Your task to perform on an android device: uninstall "DoorDash - Food Delivery" Image 0: 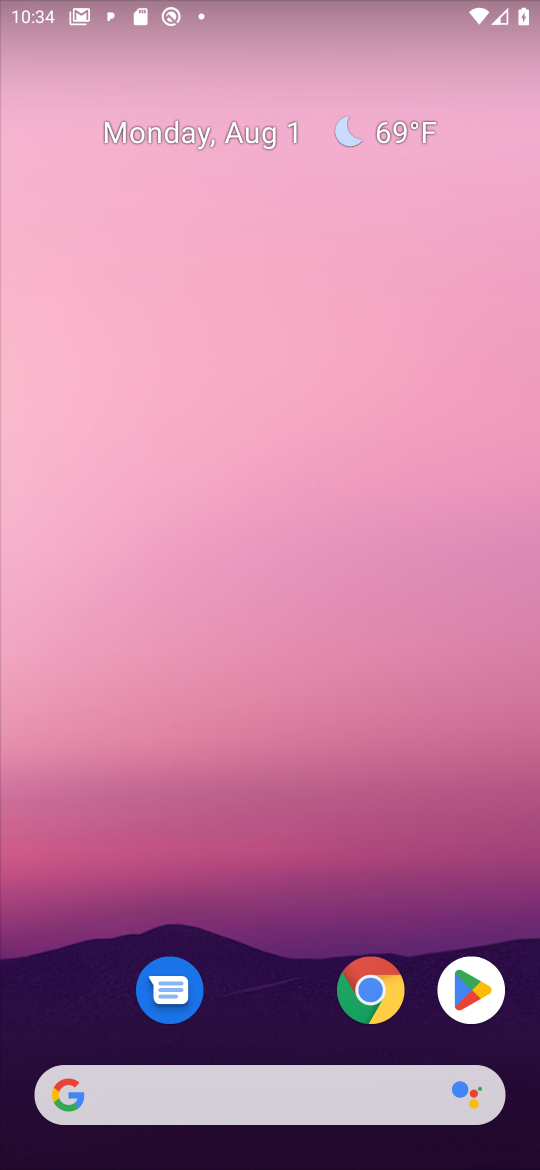
Step 0: click (461, 997)
Your task to perform on an android device: uninstall "DoorDash - Food Delivery" Image 1: 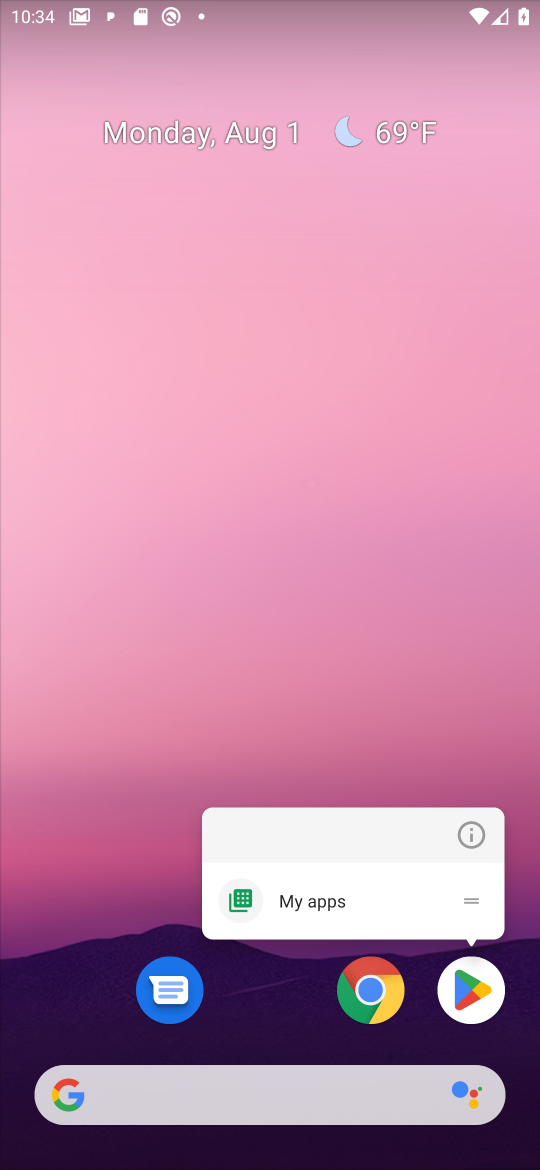
Step 1: click (498, 996)
Your task to perform on an android device: uninstall "DoorDash - Food Delivery" Image 2: 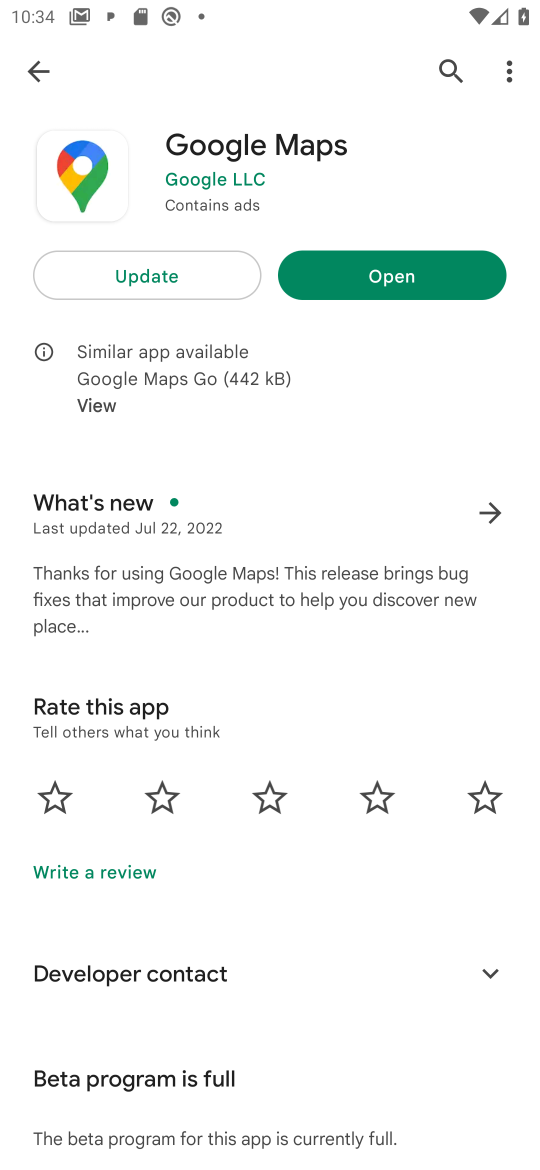
Step 2: click (452, 63)
Your task to perform on an android device: uninstall "DoorDash - Food Delivery" Image 3: 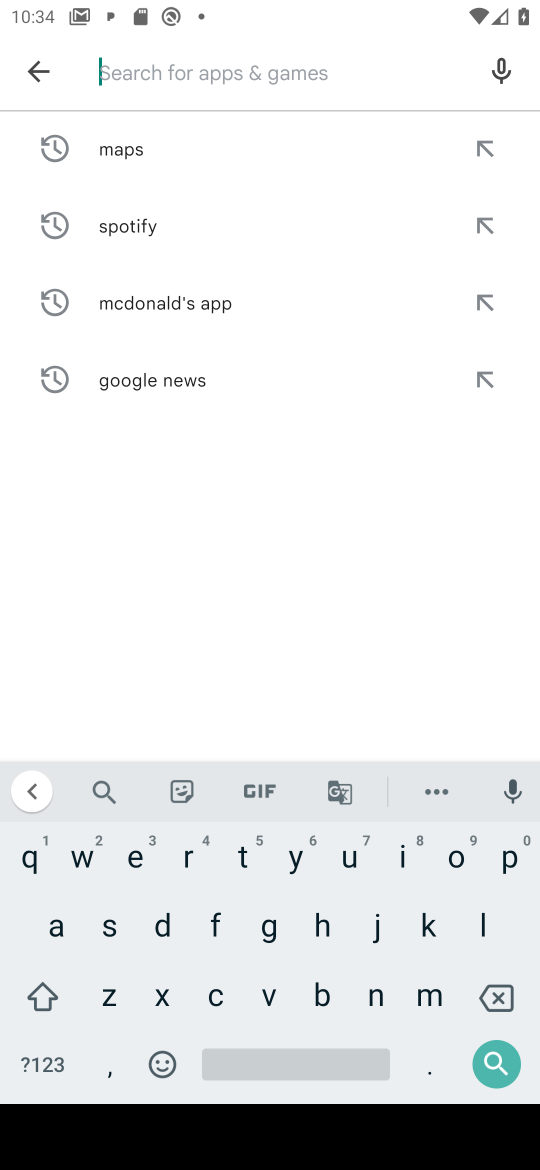
Step 3: click (152, 929)
Your task to perform on an android device: uninstall "DoorDash - Food Delivery" Image 4: 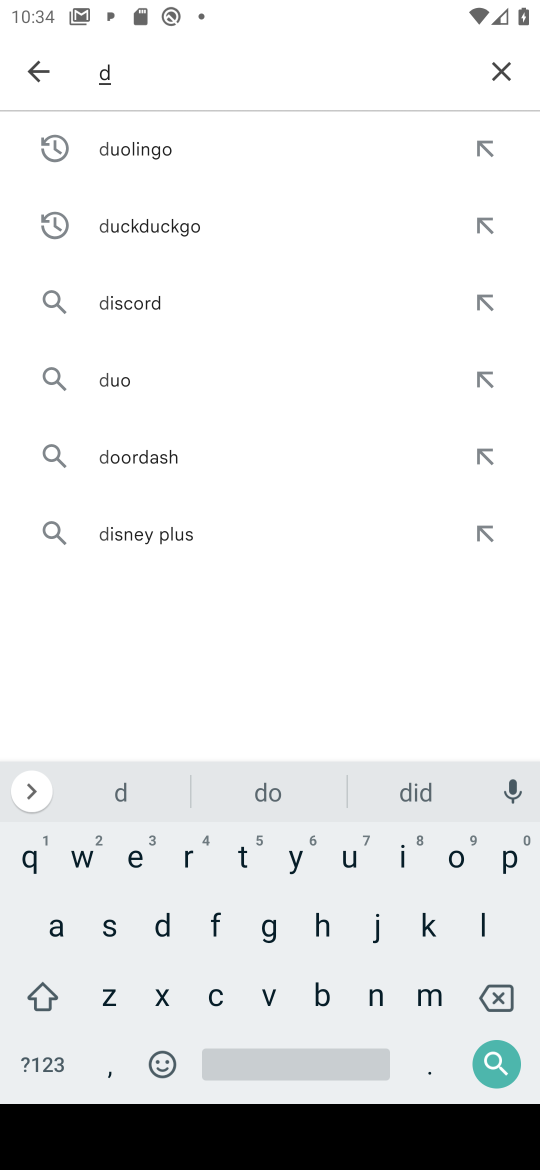
Step 4: click (179, 458)
Your task to perform on an android device: uninstall "DoorDash - Food Delivery" Image 5: 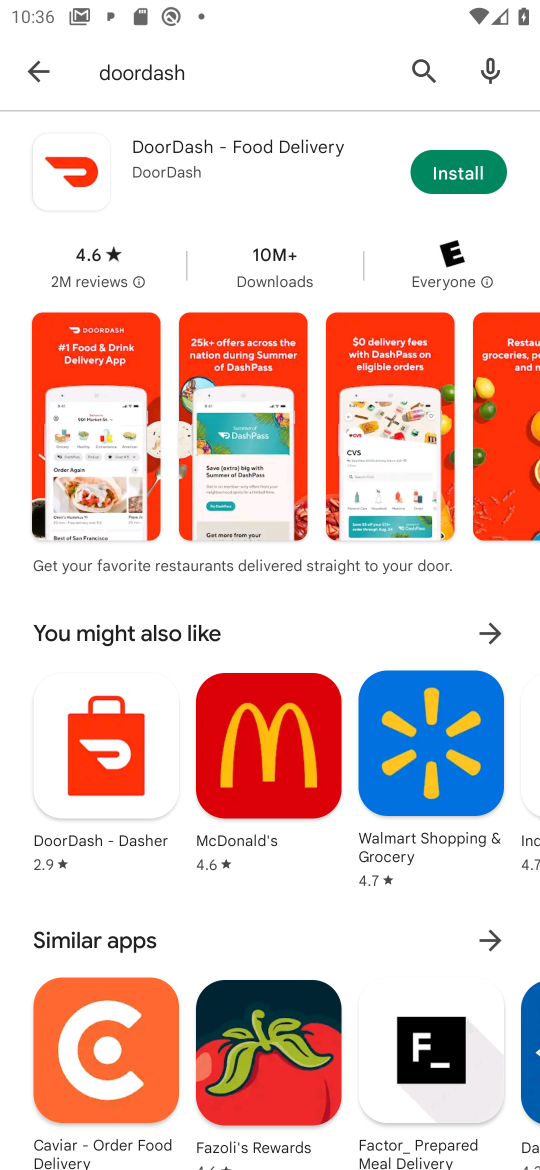
Step 5: task complete